Your task to perform on an android device: check android version Image 0: 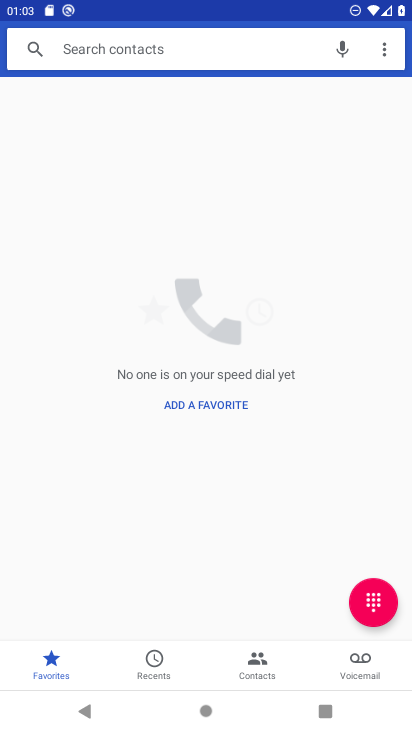
Step 0: press home button
Your task to perform on an android device: check android version Image 1: 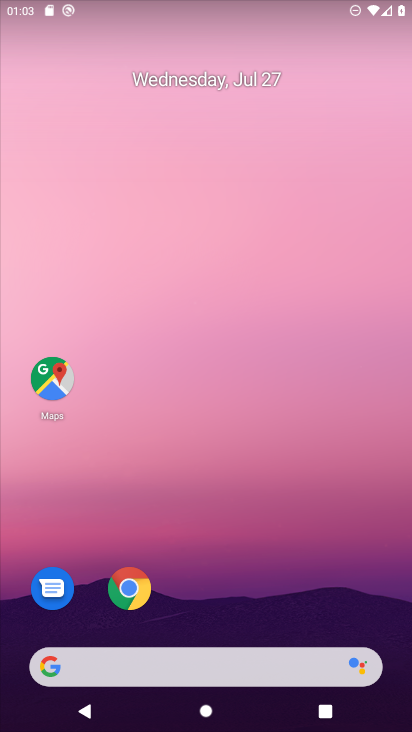
Step 1: drag from (16, 694) to (189, 208)
Your task to perform on an android device: check android version Image 2: 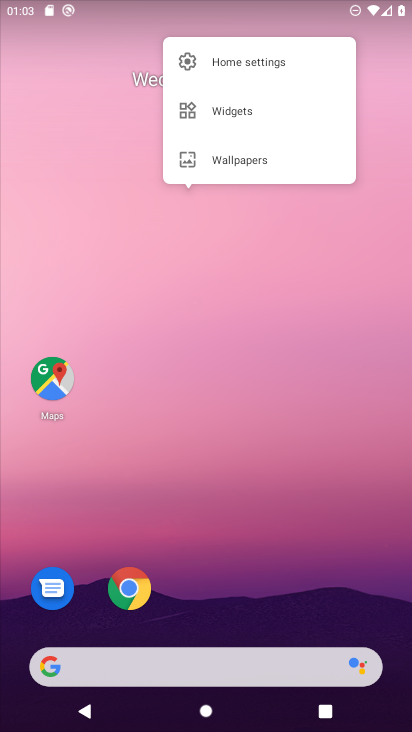
Step 2: drag from (33, 682) to (222, 208)
Your task to perform on an android device: check android version Image 3: 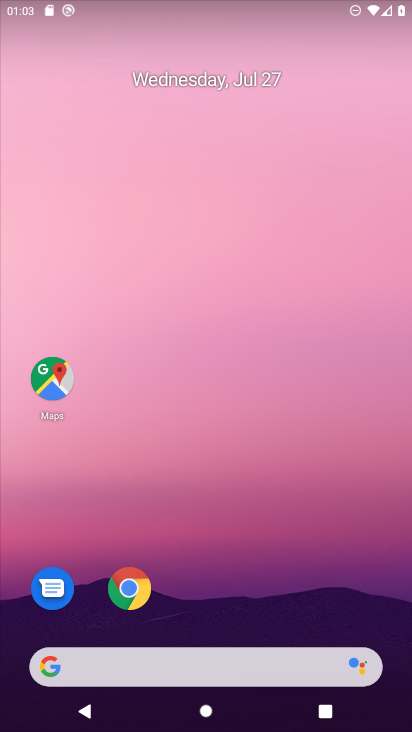
Step 3: drag from (141, 431) to (407, 37)
Your task to perform on an android device: check android version Image 4: 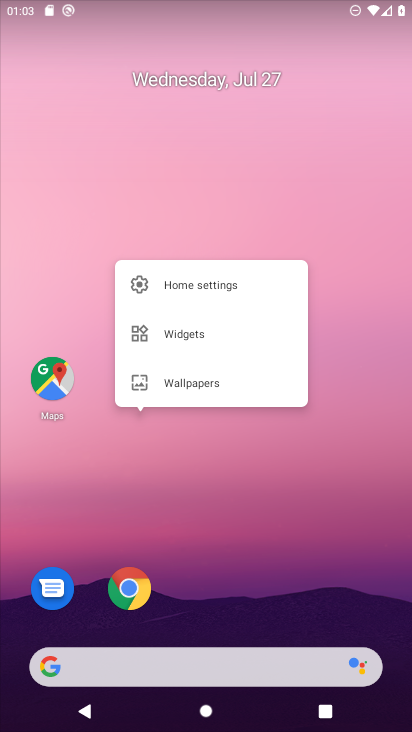
Step 4: drag from (20, 683) to (238, 105)
Your task to perform on an android device: check android version Image 5: 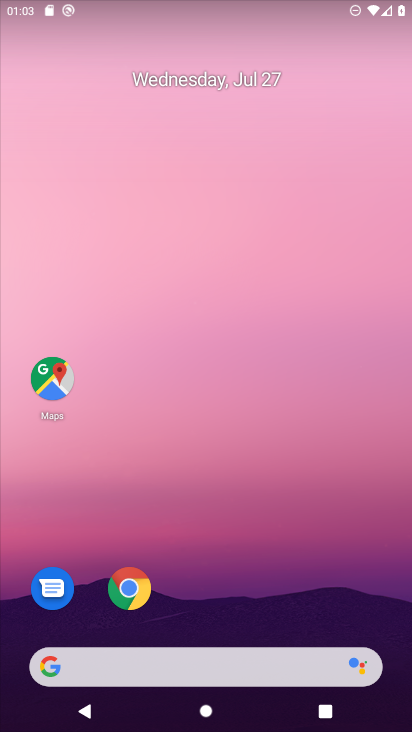
Step 5: drag from (73, 438) to (163, 132)
Your task to perform on an android device: check android version Image 6: 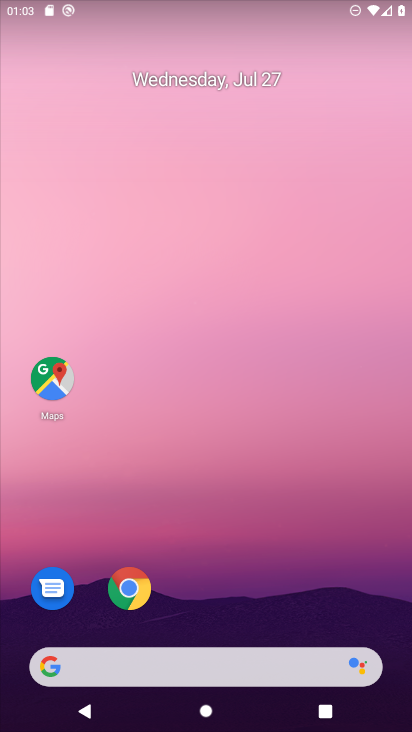
Step 6: drag from (44, 703) to (157, 114)
Your task to perform on an android device: check android version Image 7: 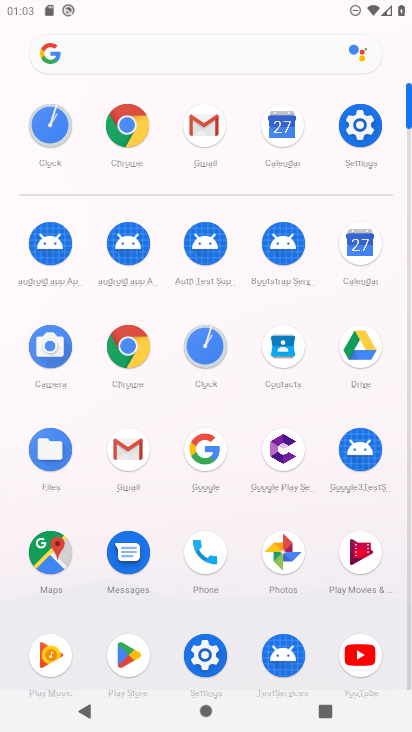
Step 7: click (210, 639)
Your task to perform on an android device: check android version Image 8: 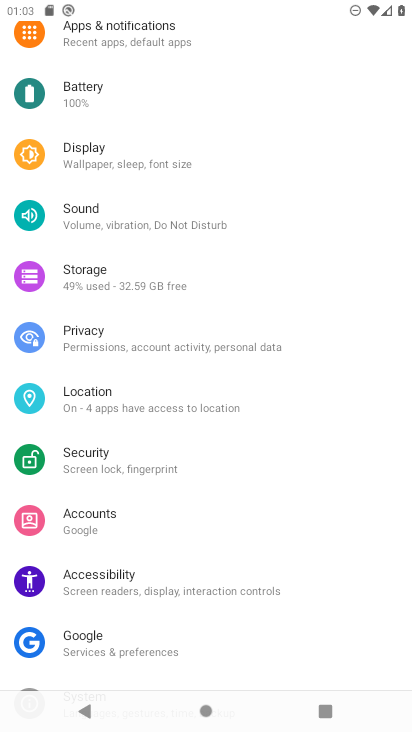
Step 8: drag from (225, 632) to (279, 357)
Your task to perform on an android device: check android version Image 9: 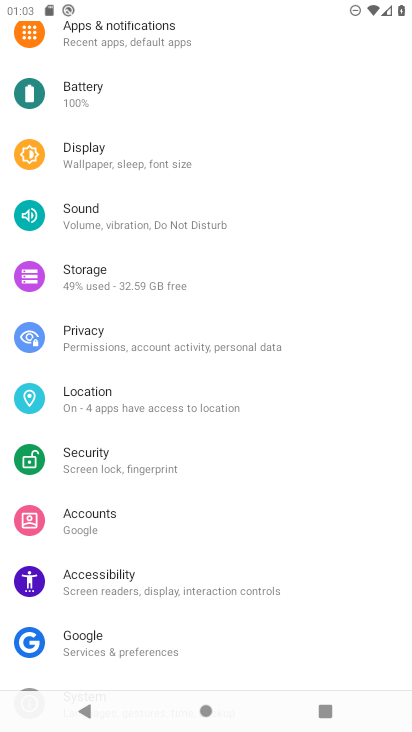
Step 9: drag from (218, 632) to (230, 306)
Your task to perform on an android device: check android version Image 10: 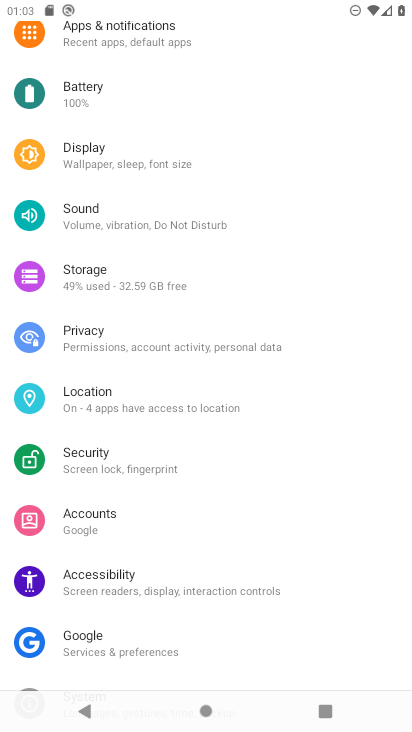
Step 10: drag from (266, 633) to (336, 231)
Your task to perform on an android device: check android version Image 11: 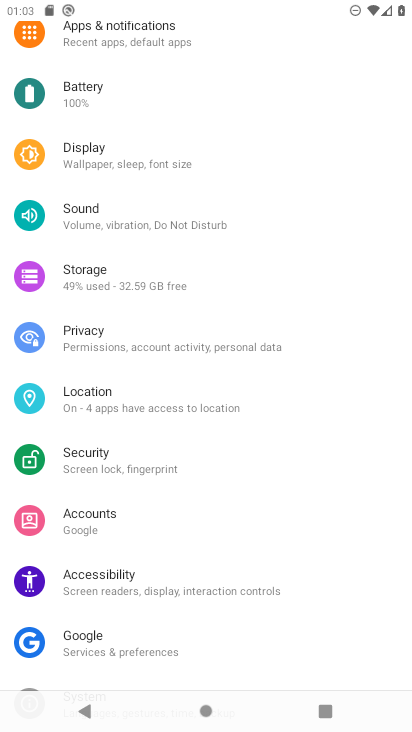
Step 11: drag from (87, 664) to (198, 37)
Your task to perform on an android device: check android version Image 12: 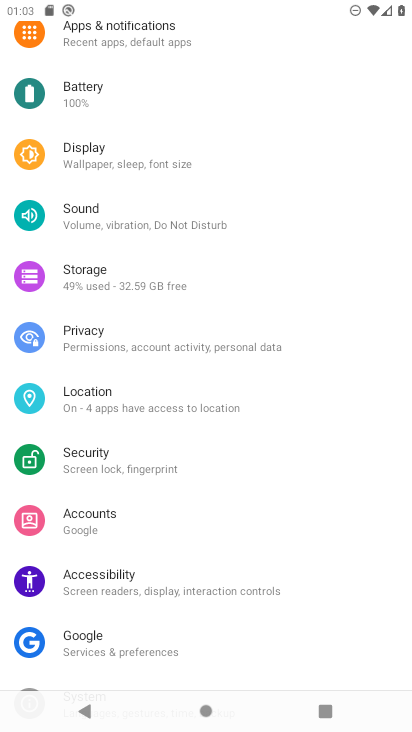
Step 12: drag from (309, 419) to (315, 0)
Your task to perform on an android device: check android version Image 13: 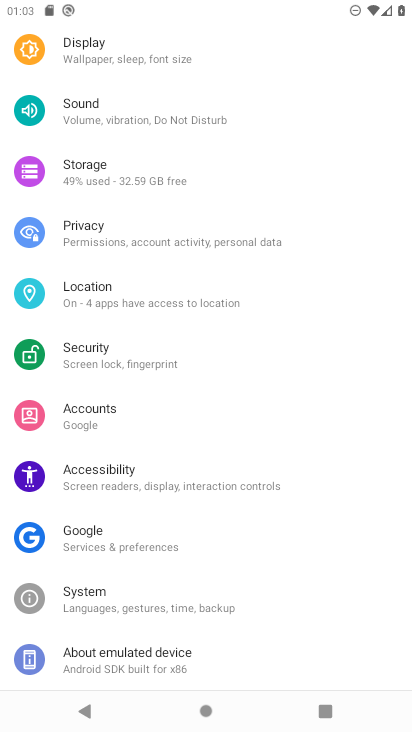
Step 13: click (65, 661)
Your task to perform on an android device: check android version Image 14: 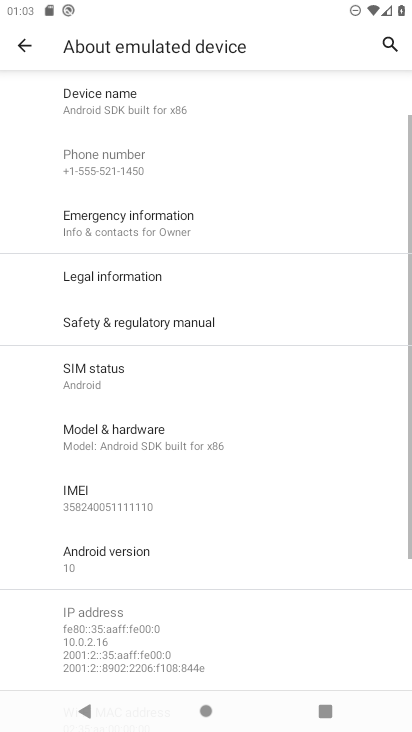
Step 14: click (116, 545)
Your task to perform on an android device: check android version Image 15: 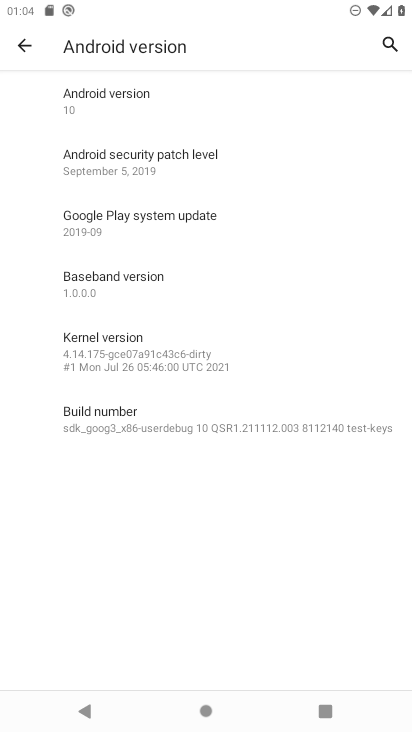
Step 15: task complete